Your task to perform on an android device: toggle sleep mode Image 0: 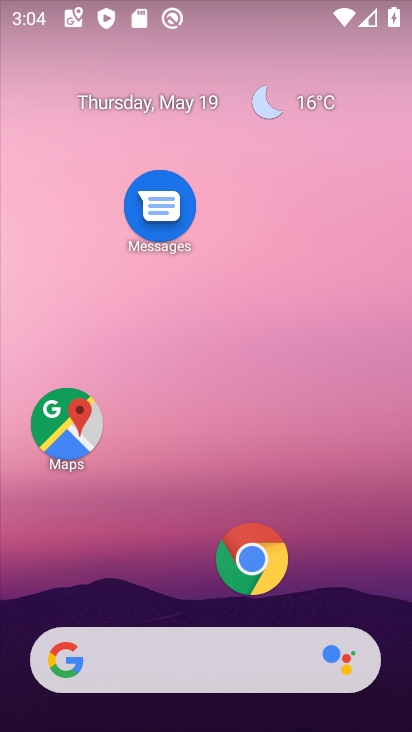
Step 0: drag from (190, 611) to (222, 220)
Your task to perform on an android device: toggle sleep mode Image 1: 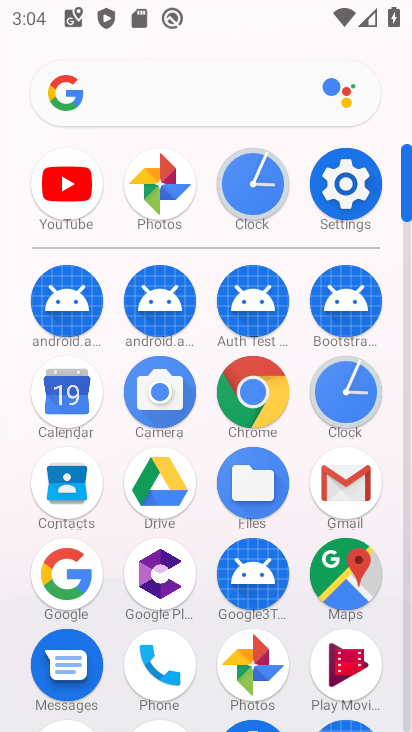
Step 1: click (337, 195)
Your task to perform on an android device: toggle sleep mode Image 2: 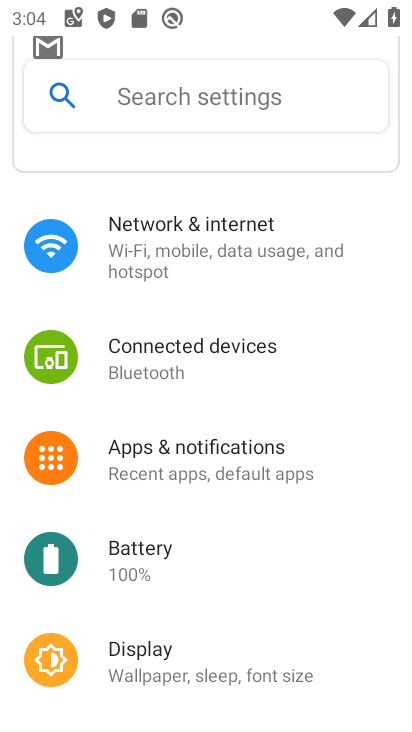
Step 2: click (197, 648)
Your task to perform on an android device: toggle sleep mode Image 3: 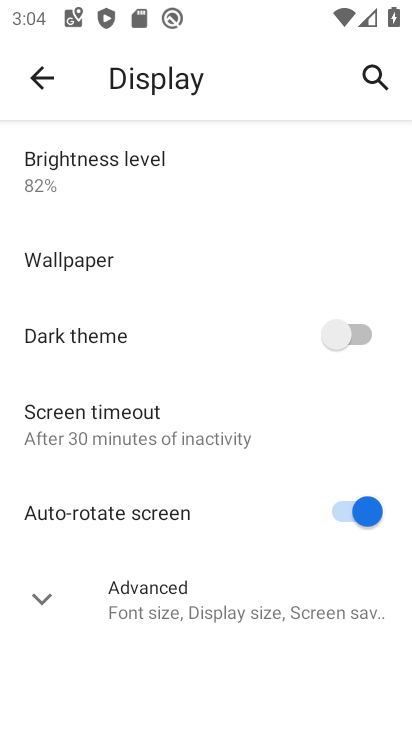
Step 3: click (129, 414)
Your task to perform on an android device: toggle sleep mode Image 4: 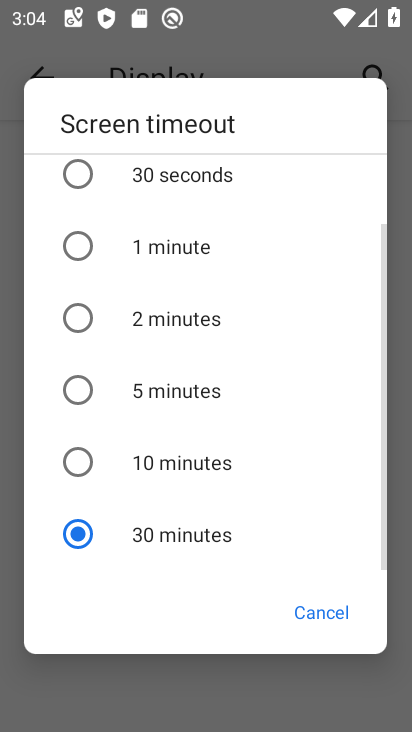
Step 4: click (141, 329)
Your task to perform on an android device: toggle sleep mode Image 5: 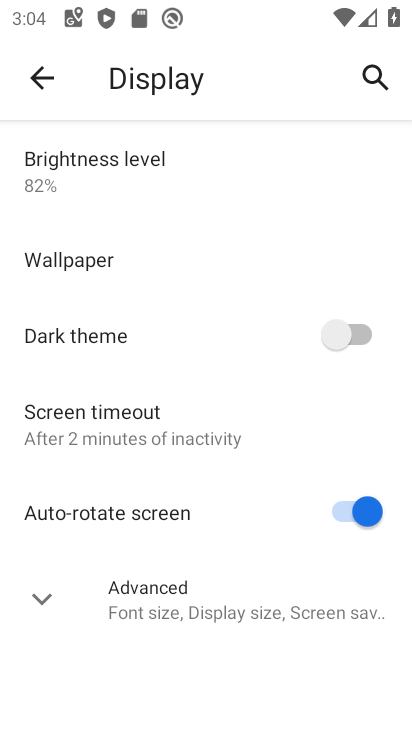
Step 5: task complete